Your task to perform on an android device: Go to accessibility settings Image 0: 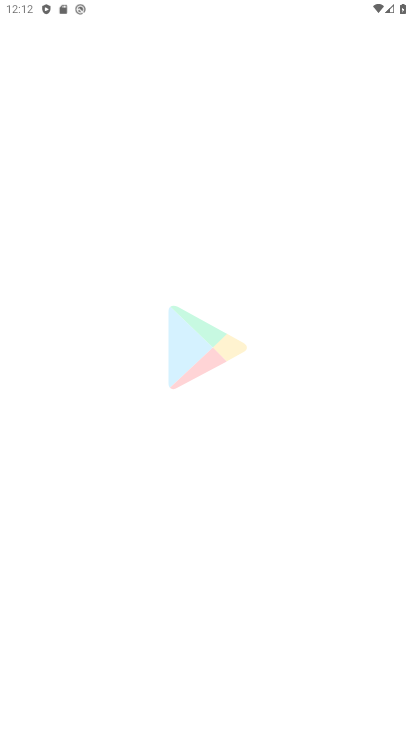
Step 0: drag from (221, 654) to (151, 304)
Your task to perform on an android device: Go to accessibility settings Image 1: 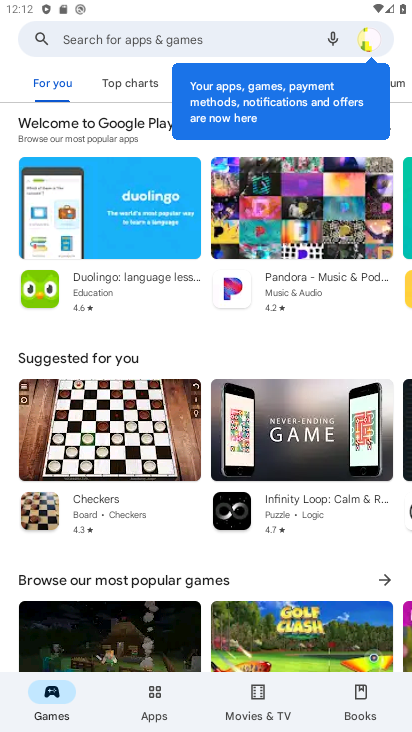
Step 1: press home button
Your task to perform on an android device: Go to accessibility settings Image 2: 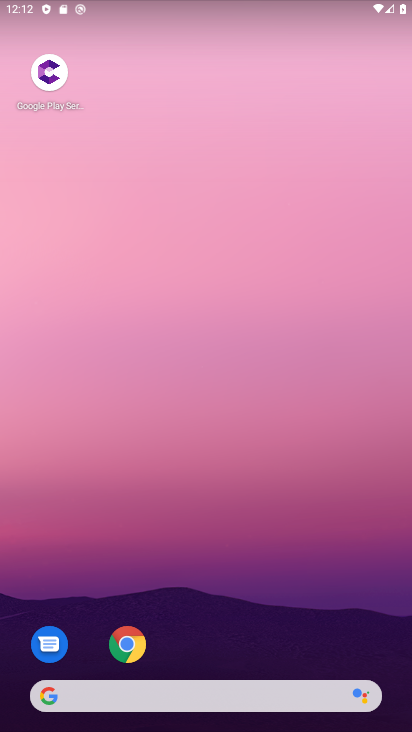
Step 2: drag from (256, 640) to (156, 243)
Your task to perform on an android device: Go to accessibility settings Image 3: 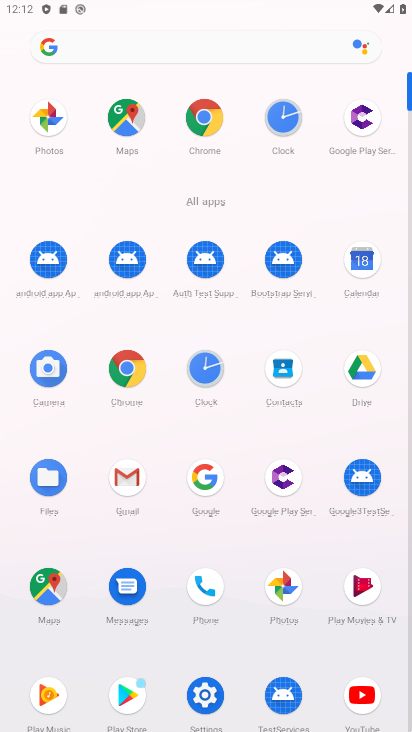
Step 3: click (200, 692)
Your task to perform on an android device: Go to accessibility settings Image 4: 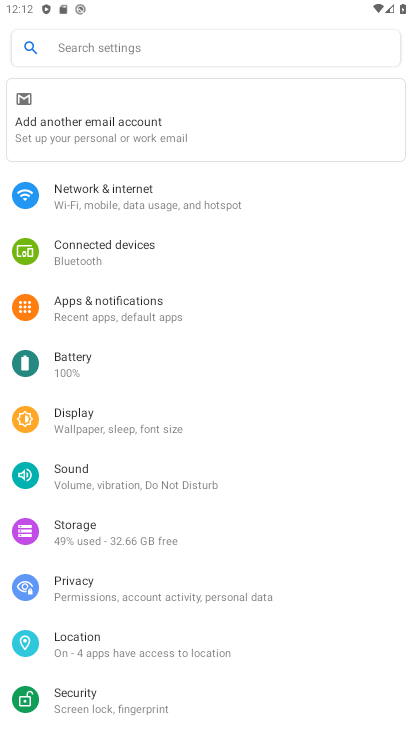
Step 4: drag from (256, 672) to (219, 261)
Your task to perform on an android device: Go to accessibility settings Image 5: 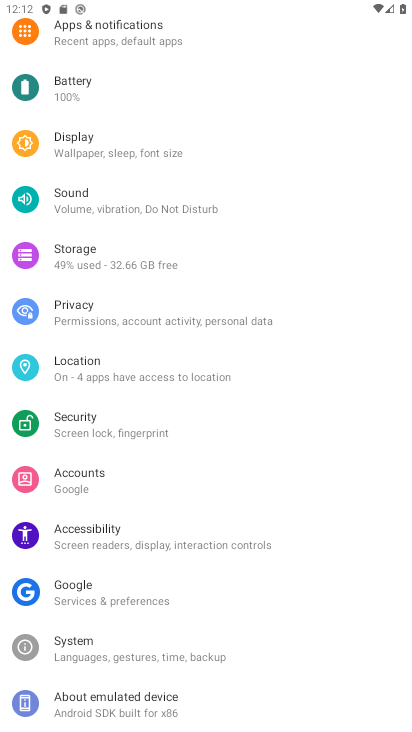
Step 5: click (223, 553)
Your task to perform on an android device: Go to accessibility settings Image 6: 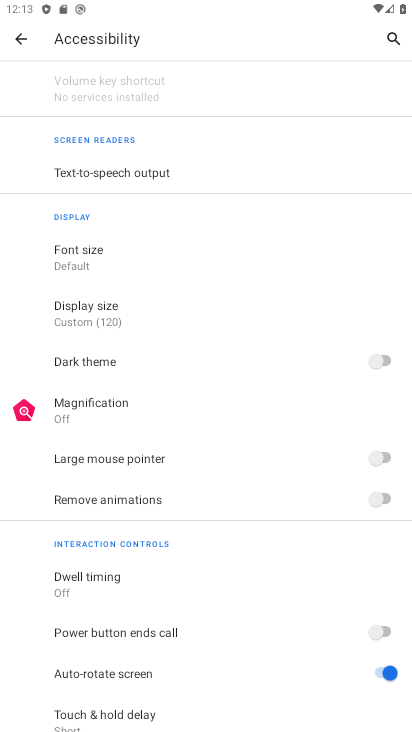
Step 6: task complete